Your task to perform on an android device: Go to accessibility settings Image 0: 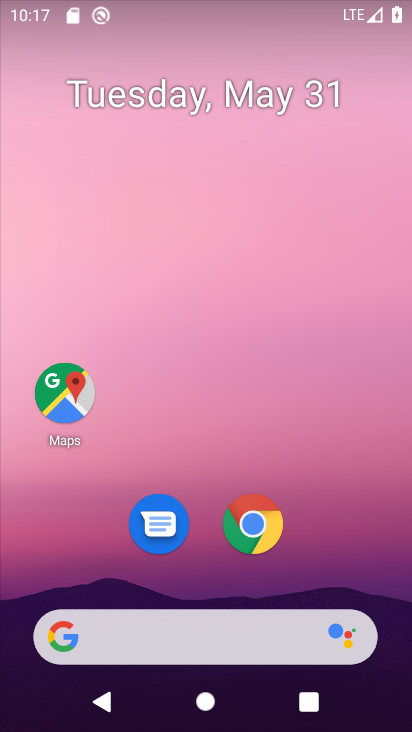
Step 0: drag from (340, 485) to (347, 22)
Your task to perform on an android device: Go to accessibility settings Image 1: 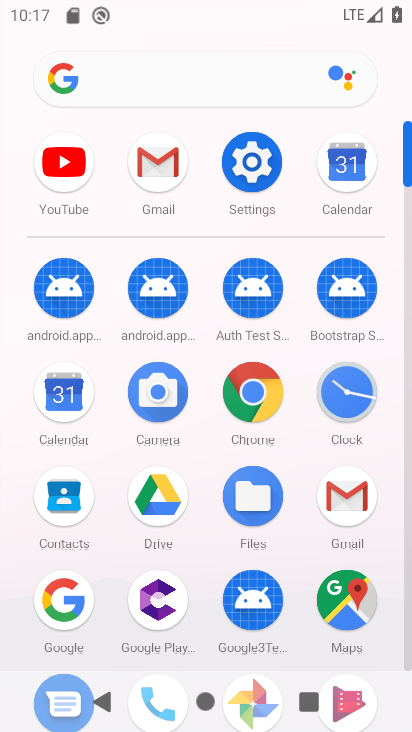
Step 1: click (263, 155)
Your task to perform on an android device: Go to accessibility settings Image 2: 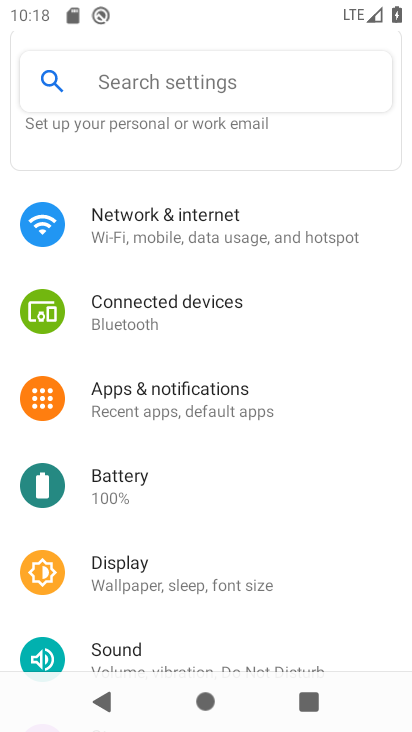
Step 2: drag from (218, 623) to (241, 6)
Your task to perform on an android device: Go to accessibility settings Image 3: 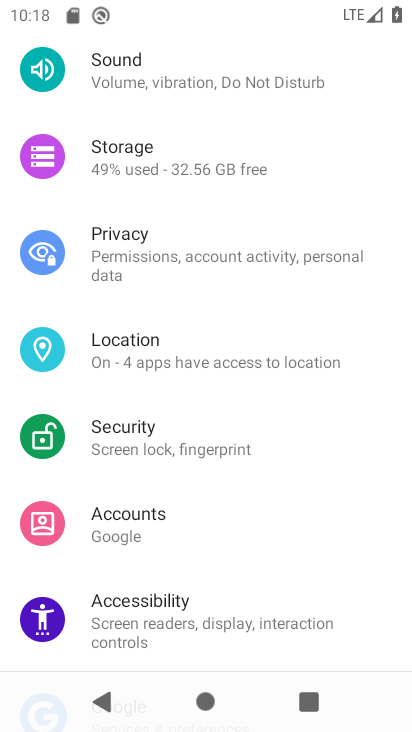
Step 3: click (199, 604)
Your task to perform on an android device: Go to accessibility settings Image 4: 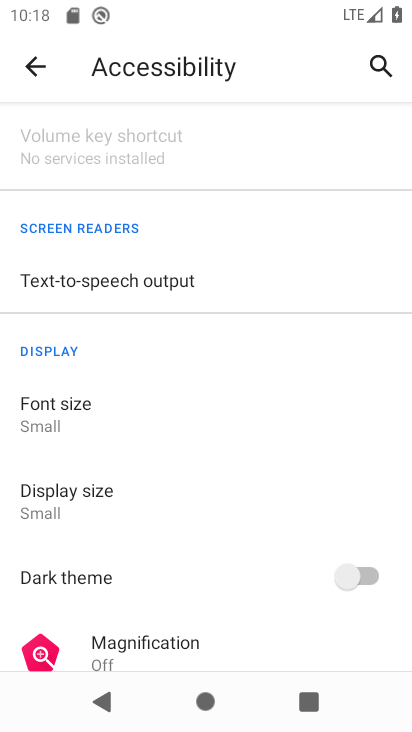
Step 4: task complete